Your task to perform on an android device: Open accessibility settings Image 0: 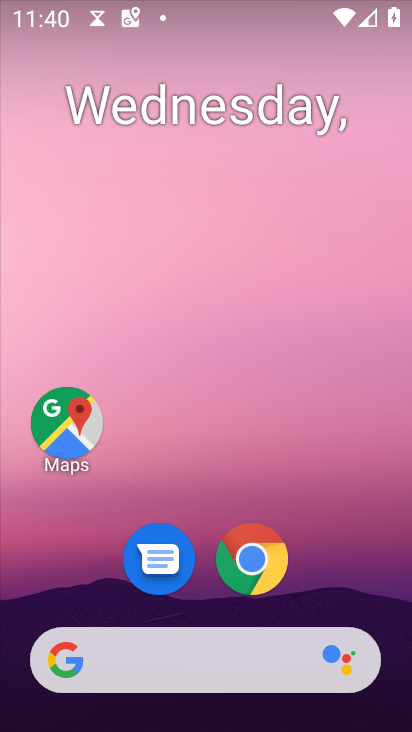
Step 0: drag from (337, 585) to (284, 232)
Your task to perform on an android device: Open accessibility settings Image 1: 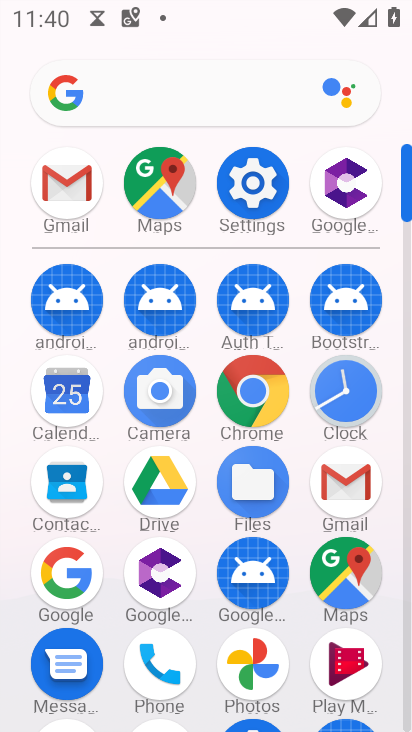
Step 1: click (263, 203)
Your task to perform on an android device: Open accessibility settings Image 2: 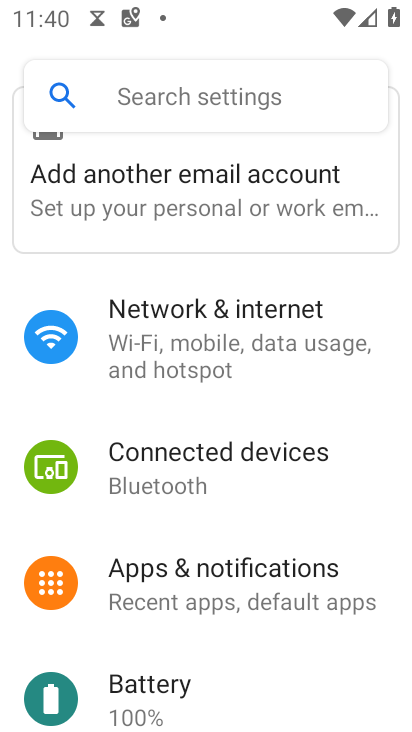
Step 2: drag from (257, 652) to (227, 217)
Your task to perform on an android device: Open accessibility settings Image 3: 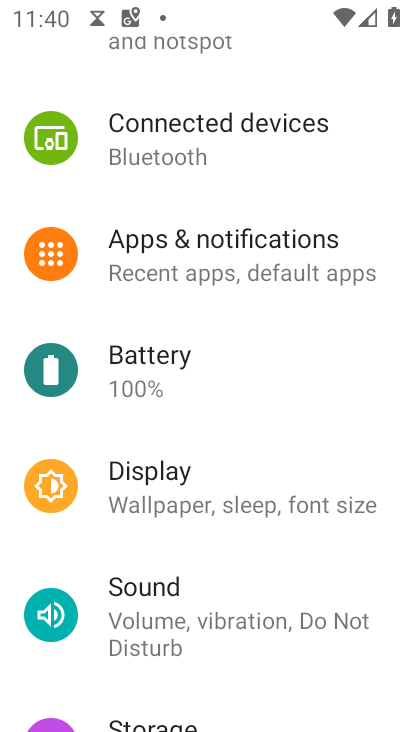
Step 3: drag from (219, 685) to (219, 225)
Your task to perform on an android device: Open accessibility settings Image 4: 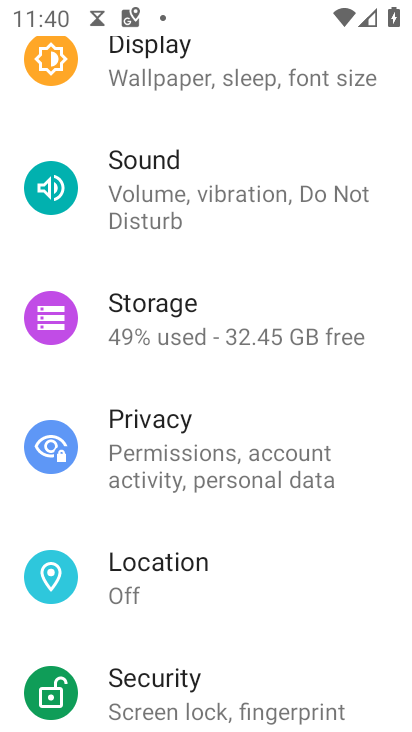
Step 4: drag from (218, 608) to (243, 8)
Your task to perform on an android device: Open accessibility settings Image 5: 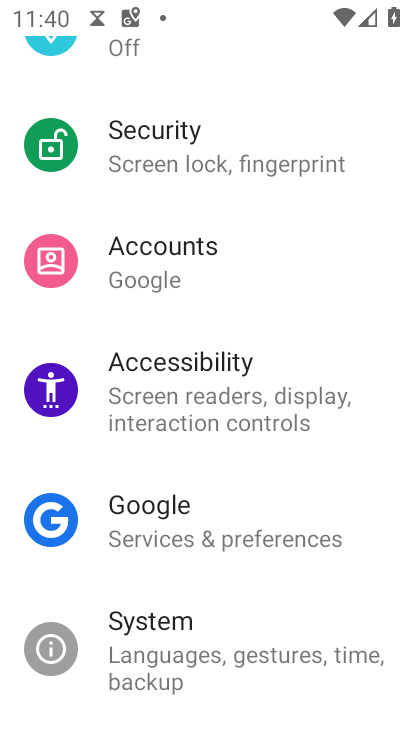
Step 5: click (228, 368)
Your task to perform on an android device: Open accessibility settings Image 6: 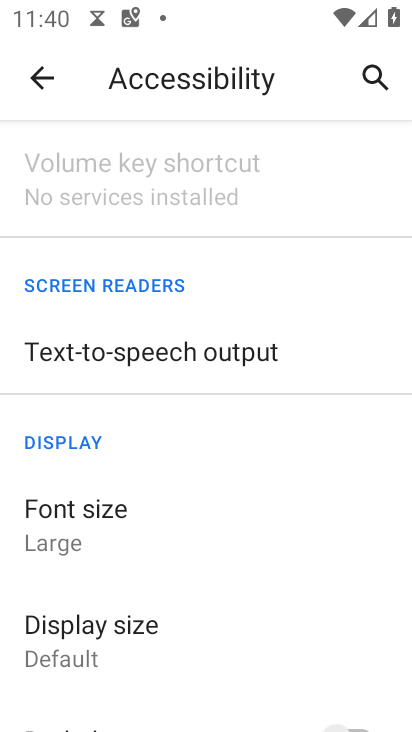
Step 6: task complete